Your task to perform on an android device: Go to network settings Image 0: 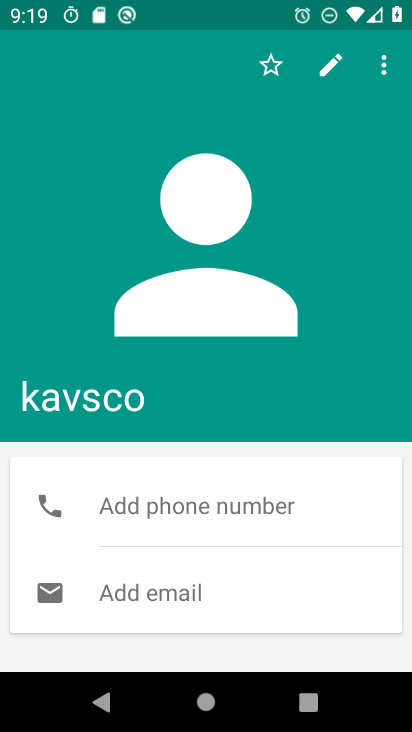
Step 0: press home button
Your task to perform on an android device: Go to network settings Image 1: 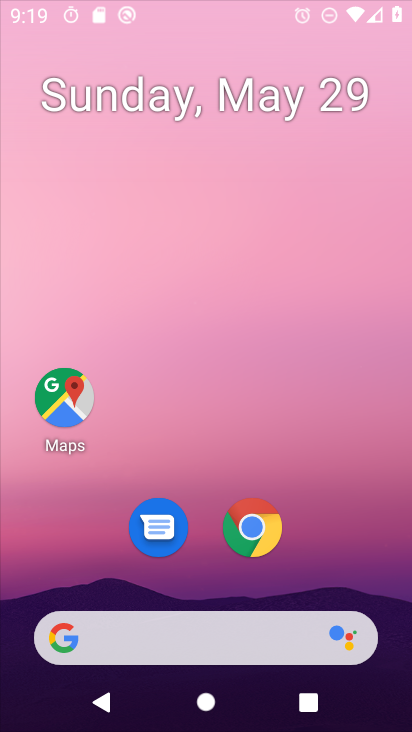
Step 1: drag from (400, 646) to (193, 48)
Your task to perform on an android device: Go to network settings Image 2: 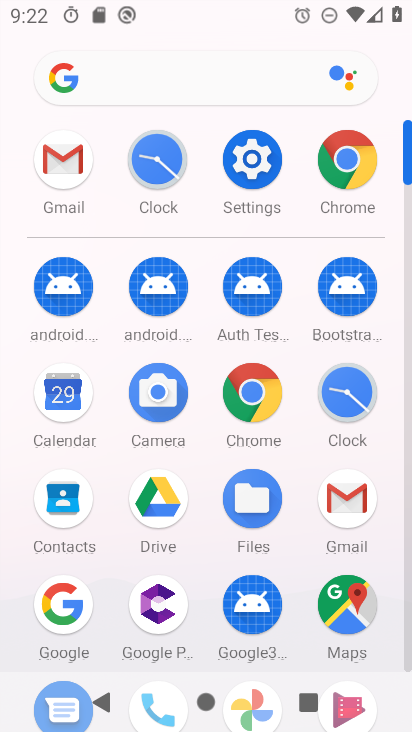
Step 2: click (243, 197)
Your task to perform on an android device: Go to network settings Image 3: 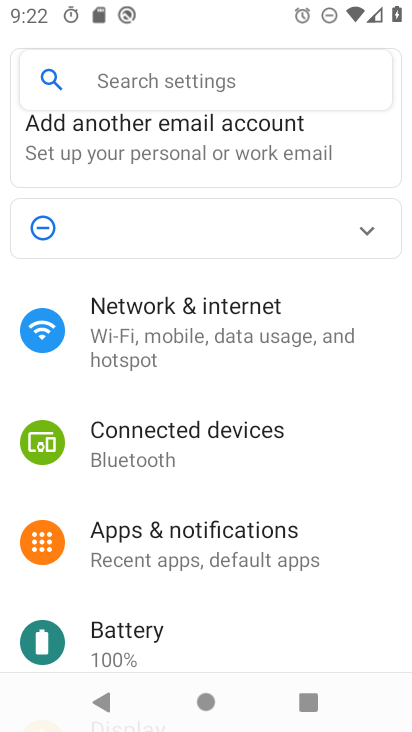
Step 3: click (226, 357)
Your task to perform on an android device: Go to network settings Image 4: 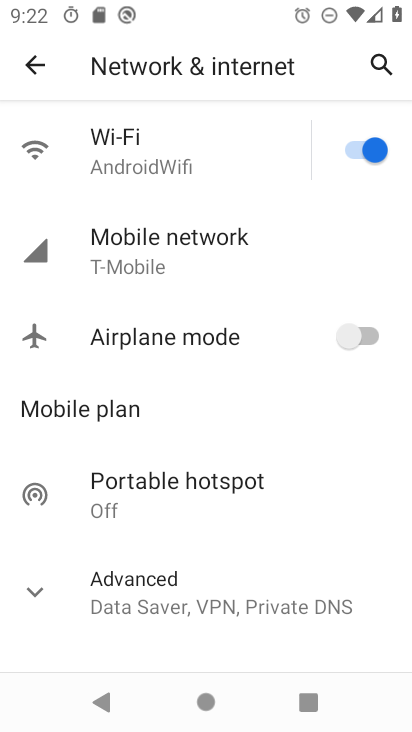
Step 4: task complete